Your task to perform on an android device: Go to privacy settings Image 0: 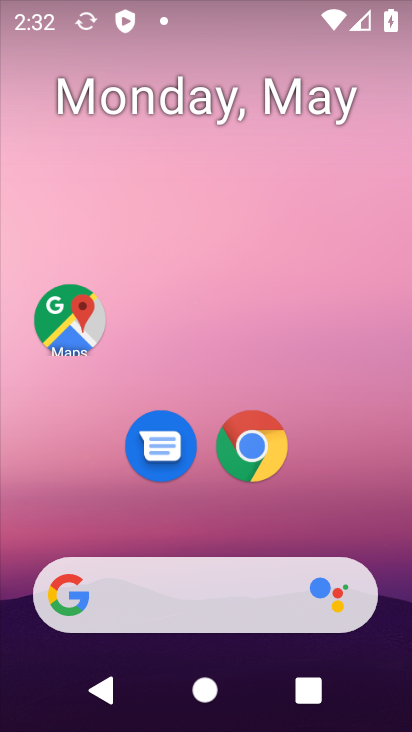
Step 0: click (243, 466)
Your task to perform on an android device: Go to privacy settings Image 1: 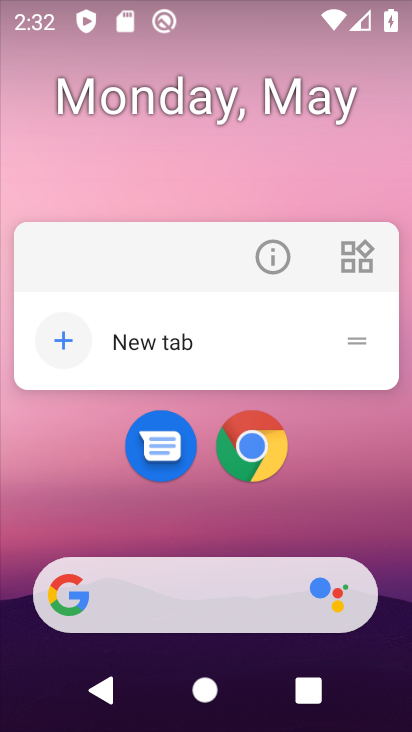
Step 1: click (256, 454)
Your task to perform on an android device: Go to privacy settings Image 2: 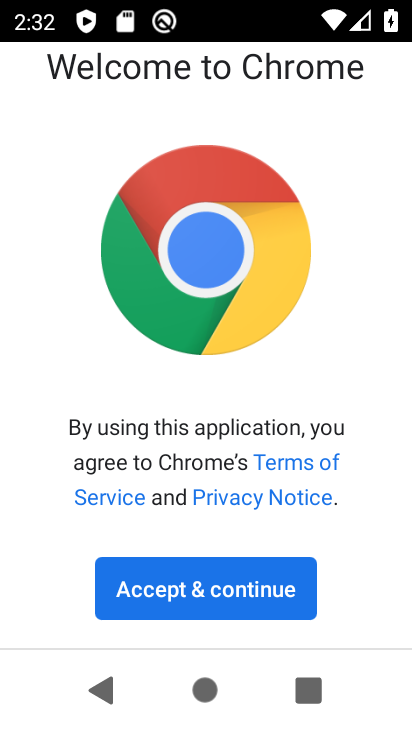
Step 2: click (264, 575)
Your task to perform on an android device: Go to privacy settings Image 3: 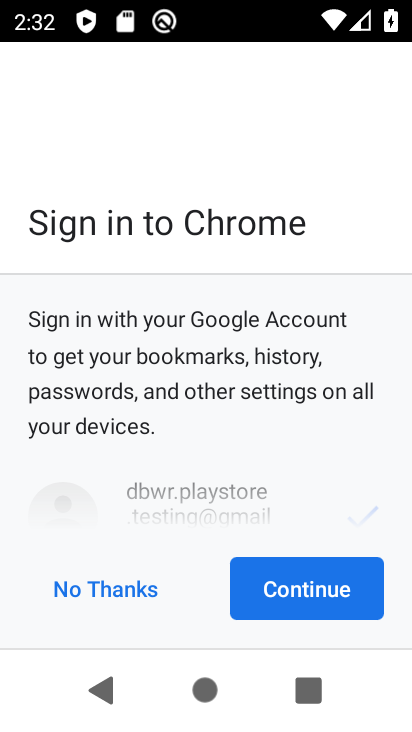
Step 3: click (309, 598)
Your task to perform on an android device: Go to privacy settings Image 4: 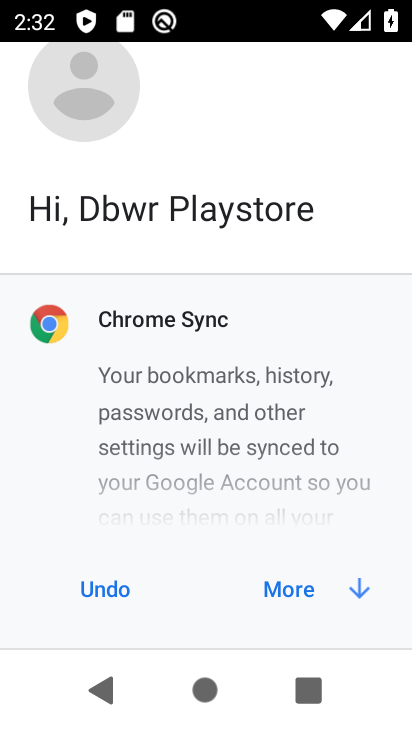
Step 4: click (309, 598)
Your task to perform on an android device: Go to privacy settings Image 5: 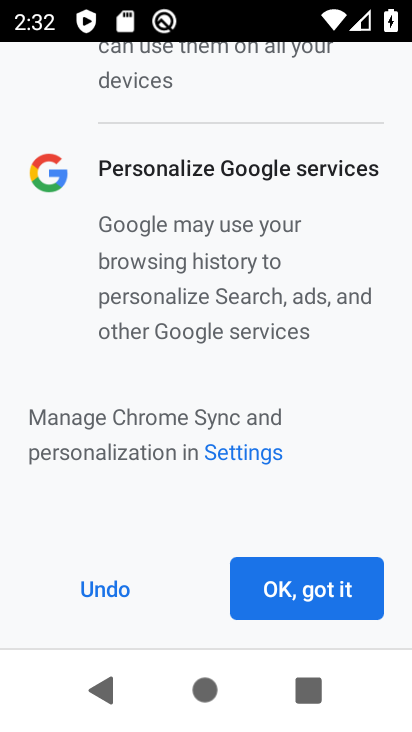
Step 5: click (312, 598)
Your task to perform on an android device: Go to privacy settings Image 6: 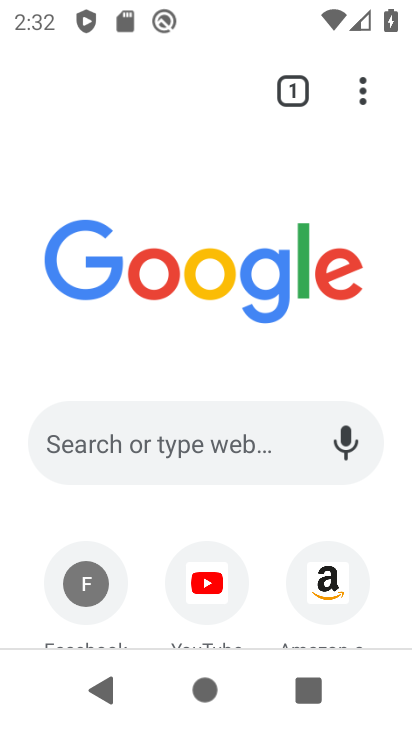
Step 6: drag from (376, 102) to (296, 467)
Your task to perform on an android device: Go to privacy settings Image 7: 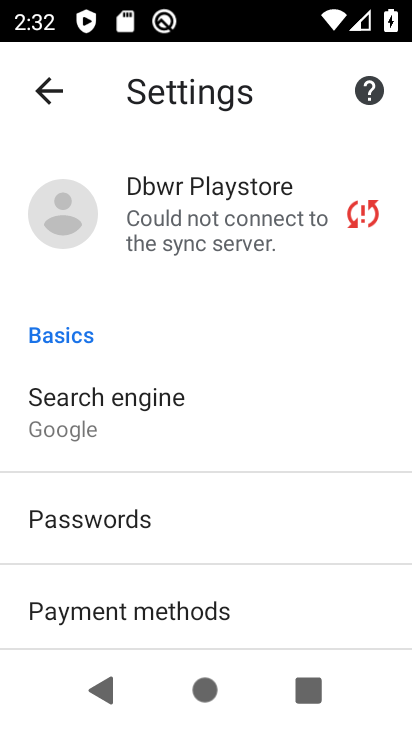
Step 7: drag from (251, 559) to (373, 197)
Your task to perform on an android device: Go to privacy settings Image 8: 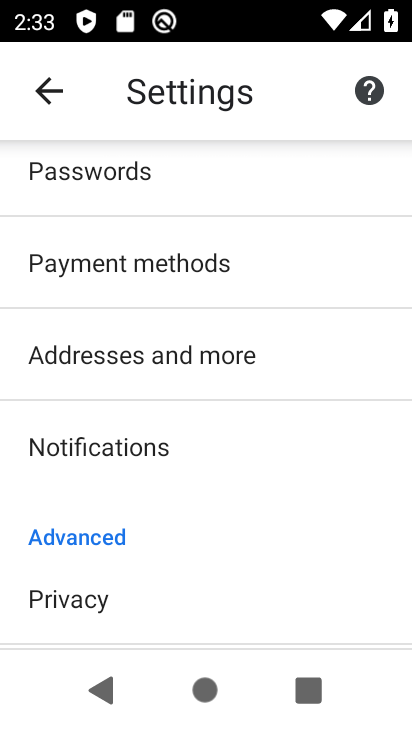
Step 8: click (190, 586)
Your task to perform on an android device: Go to privacy settings Image 9: 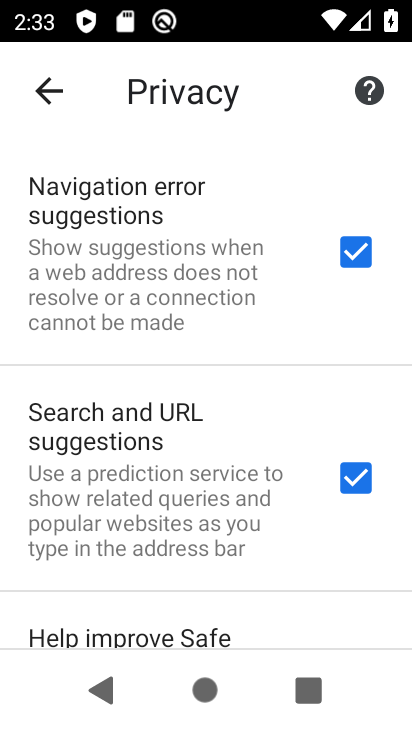
Step 9: task complete